Your task to perform on an android device: turn on showing notifications on the lock screen Image 0: 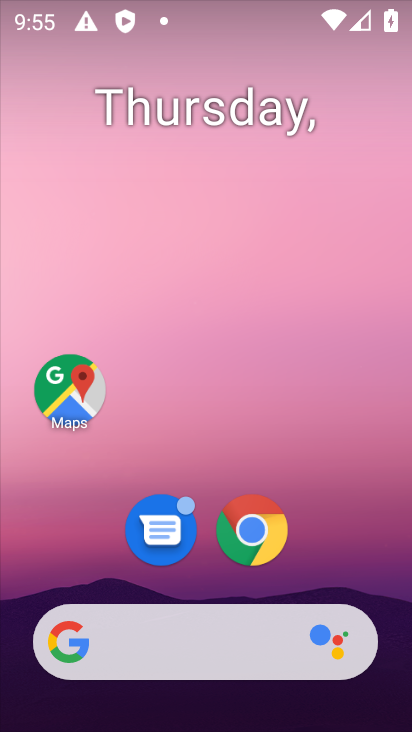
Step 0: press home button
Your task to perform on an android device: turn on showing notifications on the lock screen Image 1: 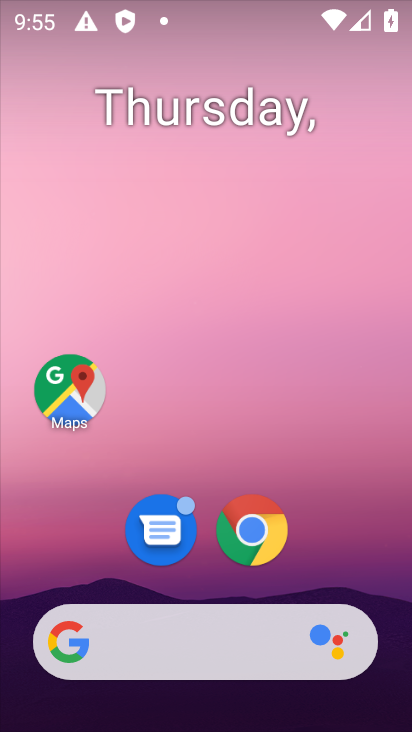
Step 1: press home button
Your task to perform on an android device: turn on showing notifications on the lock screen Image 2: 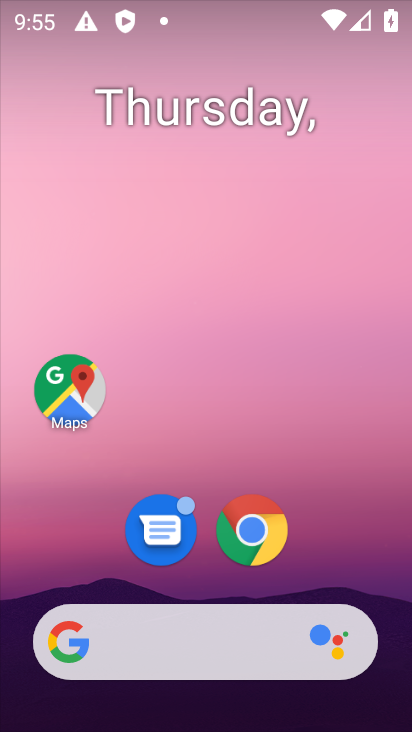
Step 2: drag from (354, 564) to (251, 730)
Your task to perform on an android device: turn on showing notifications on the lock screen Image 3: 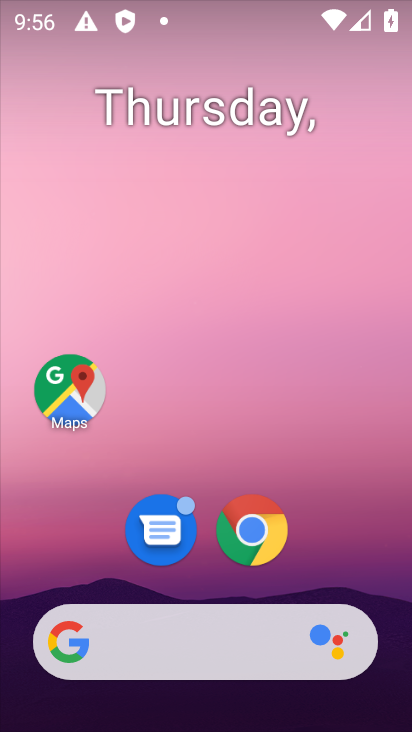
Step 3: drag from (327, 566) to (403, 207)
Your task to perform on an android device: turn on showing notifications on the lock screen Image 4: 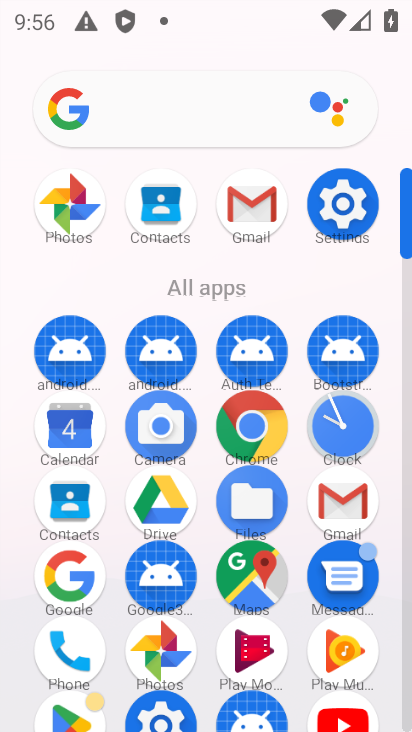
Step 4: click (339, 213)
Your task to perform on an android device: turn on showing notifications on the lock screen Image 5: 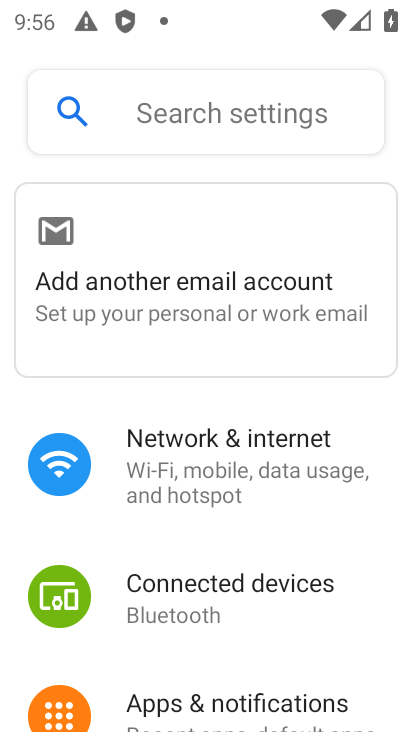
Step 5: drag from (231, 663) to (206, 431)
Your task to perform on an android device: turn on showing notifications on the lock screen Image 6: 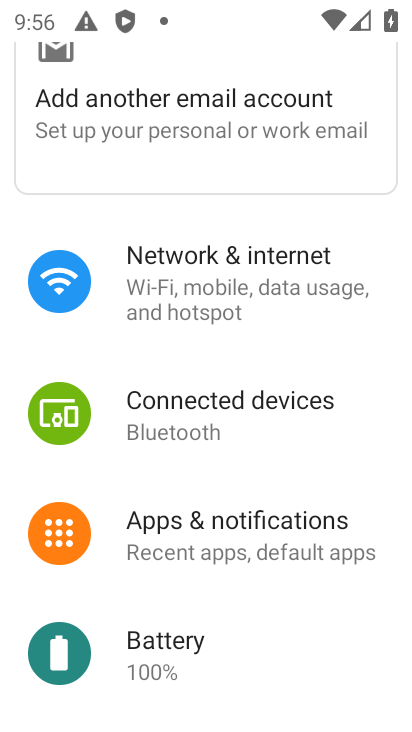
Step 6: click (197, 525)
Your task to perform on an android device: turn on showing notifications on the lock screen Image 7: 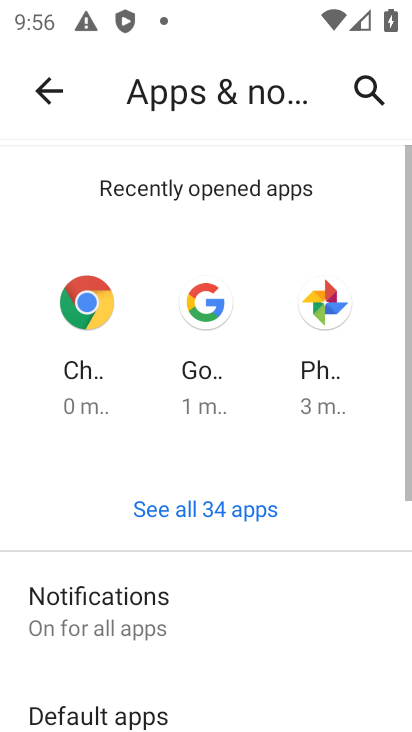
Step 7: click (106, 602)
Your task to perform on an android device: turn on showing notifications on the lock screen Image 8: 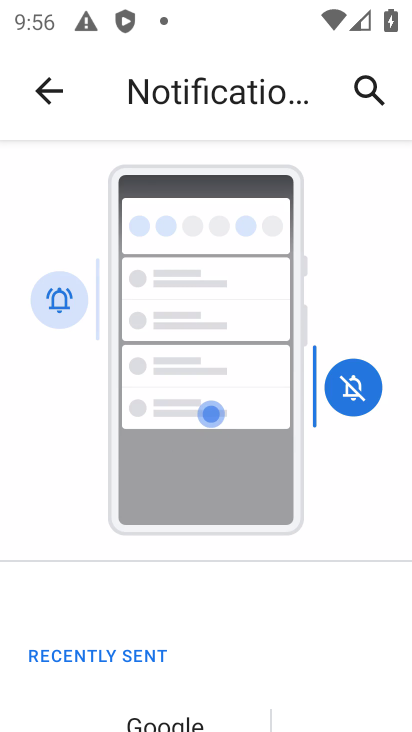
Step 8: drag from (271, 627) to (249, 97)
Your task to perform on an android device: turn on showing notifications on the lock screen Image 9: 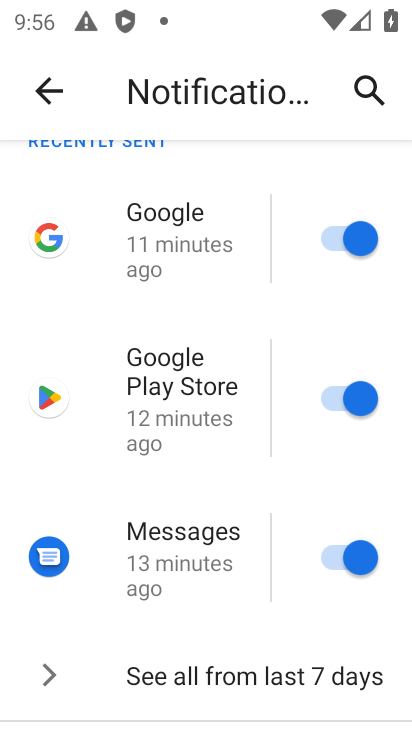
Step 9: drag from (102, 191) to (120, 2)
Your task to perform on an android device: turn on showing notifications on the lock screen Image 10: 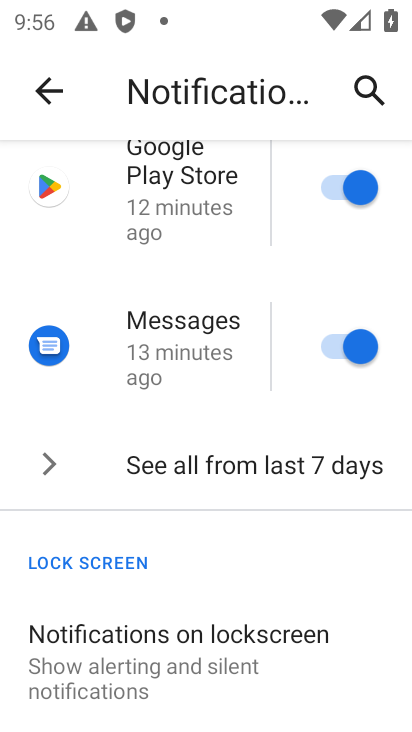
Step 10: click (188, 638)
Your task to perform on an android device: turn on showing notifications on the lock screen Image 11: 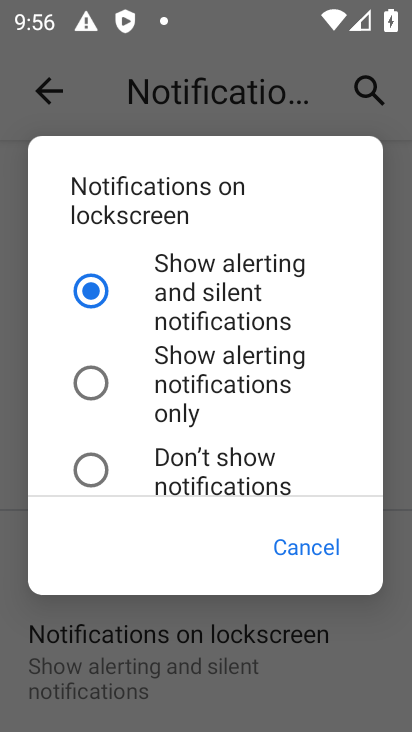
Step 11: task complete